Your task to perform on an android device: find snoozed emails in the gmail app Image 0: 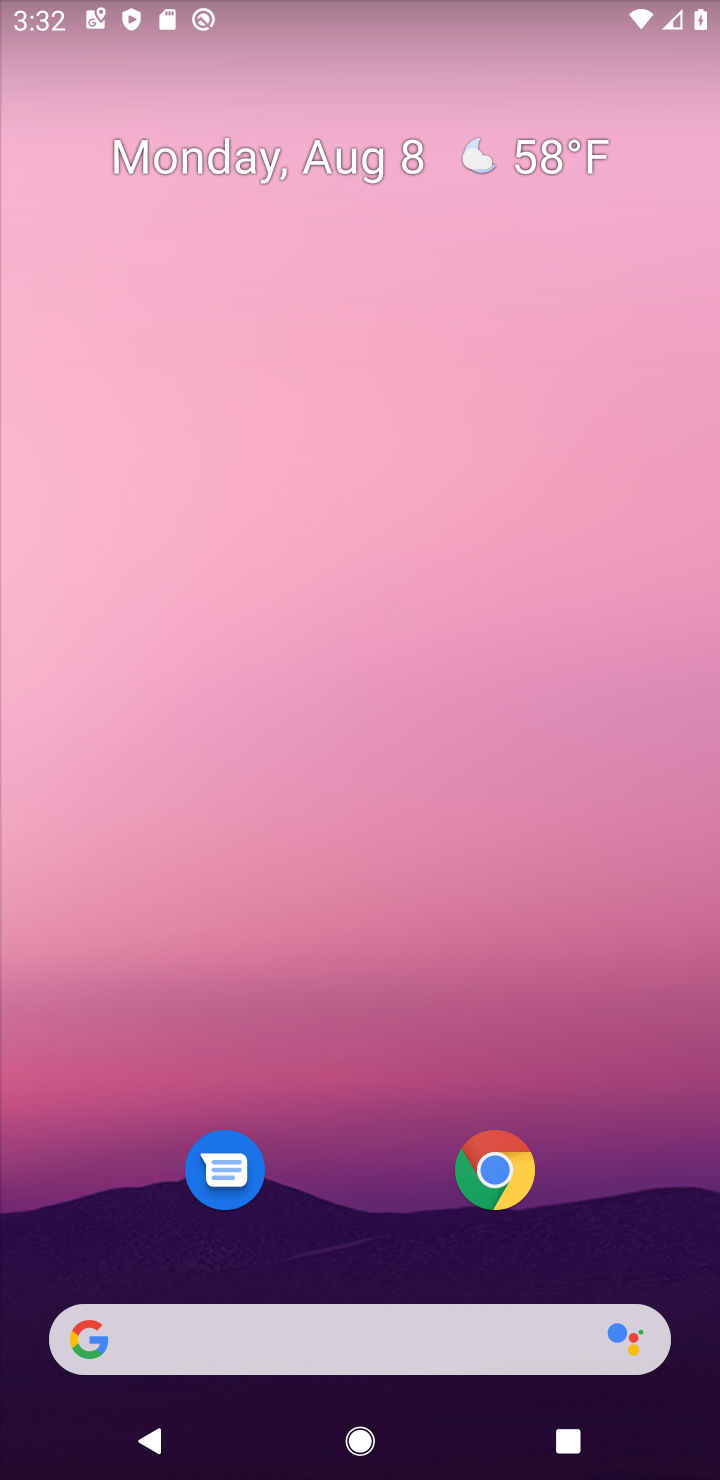
Step 0: drag from (349, 986) to (346, 309)
Your task to perform on an android device: find snoozed emails in the gmail app Image 1: 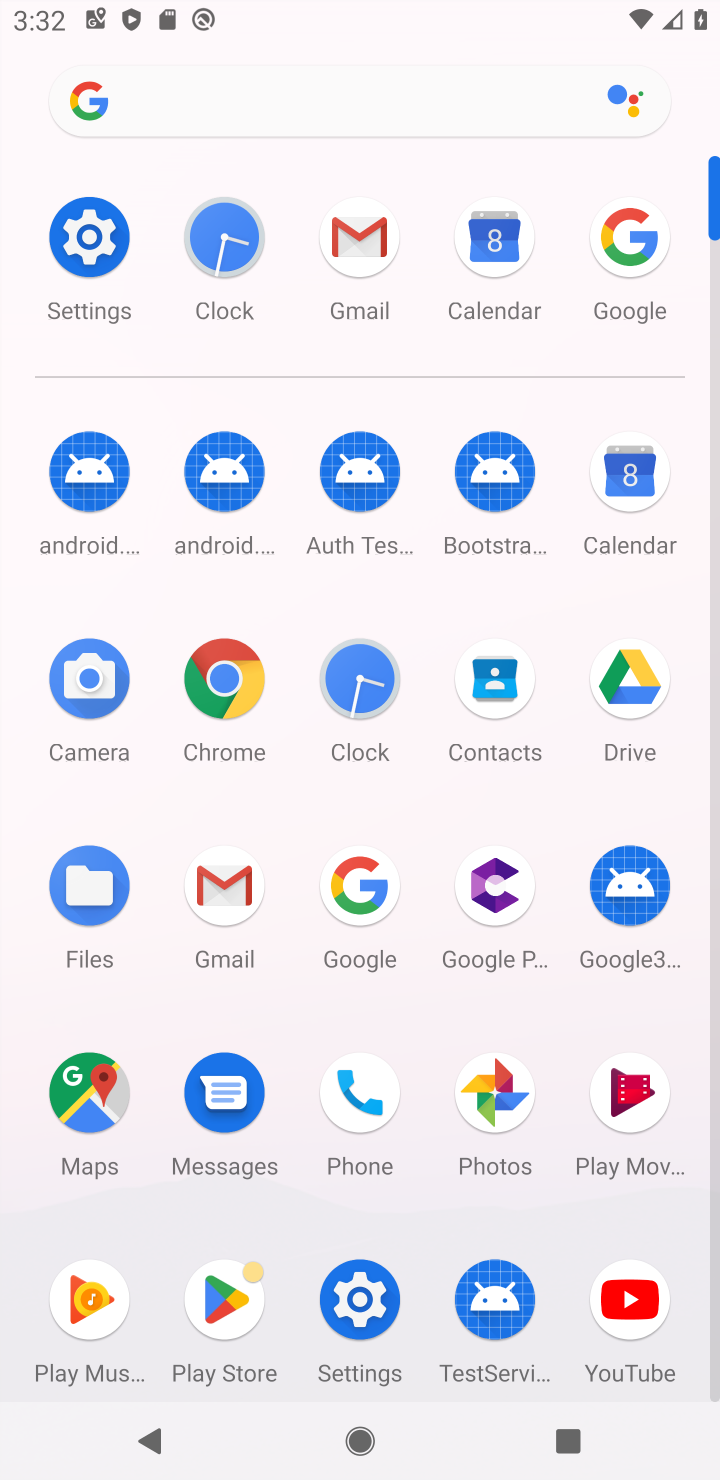
Step 1: click (338, 252)
Your task to perform on an android device: find snoozed emails in the gmail app Image 2: 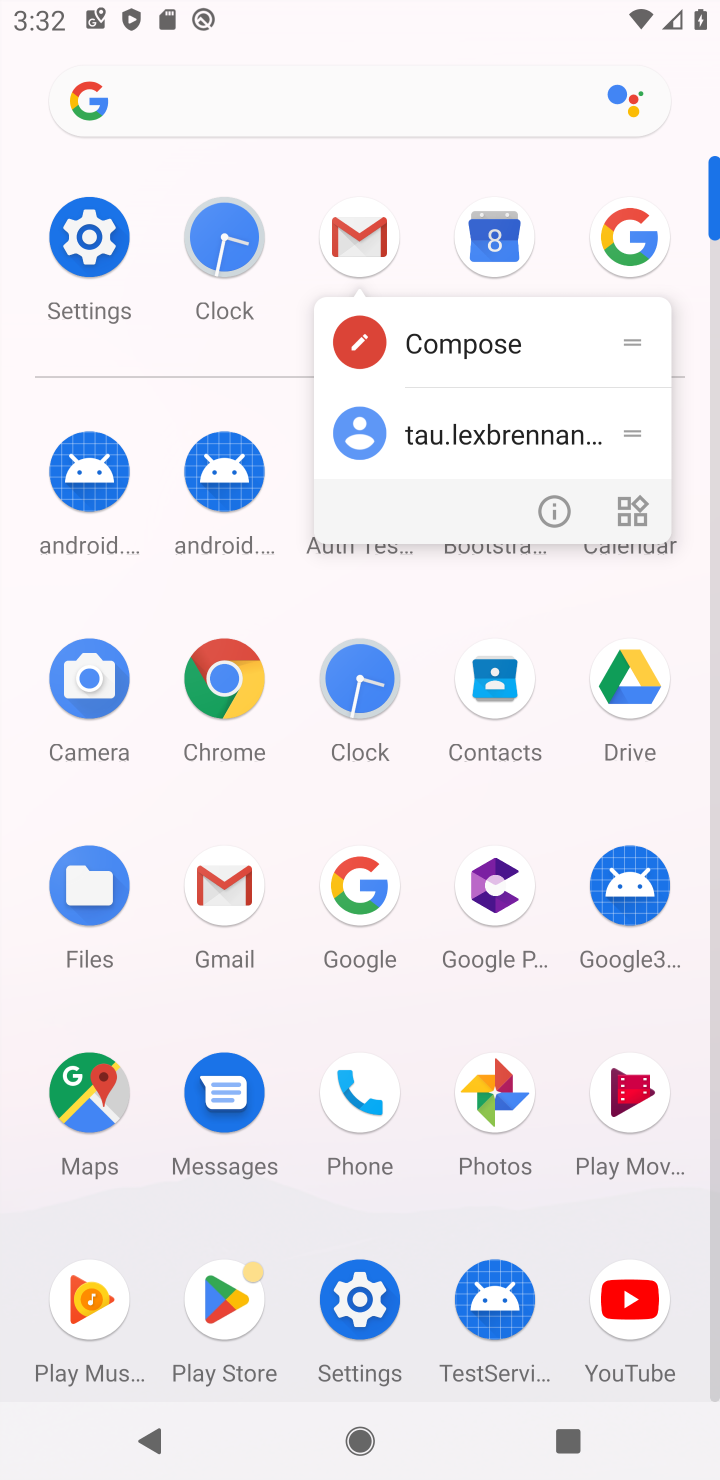
Step 2: click (345, 242)
Your task to perform on an android device: find snoozed emails in the gmail app Image 3: 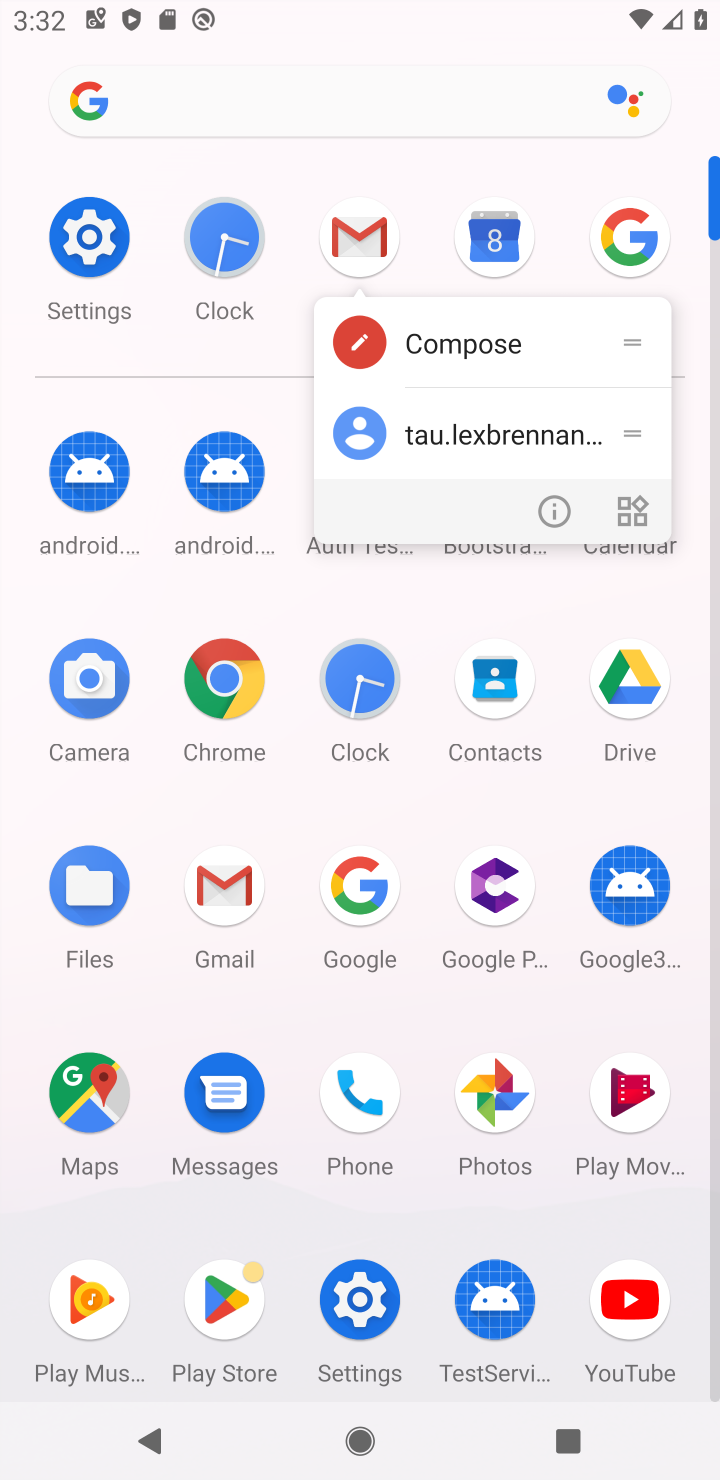
Step 3: click (345, 249)
Your task to perform on an android device: find snoozed emails in the gmail app Image 4: 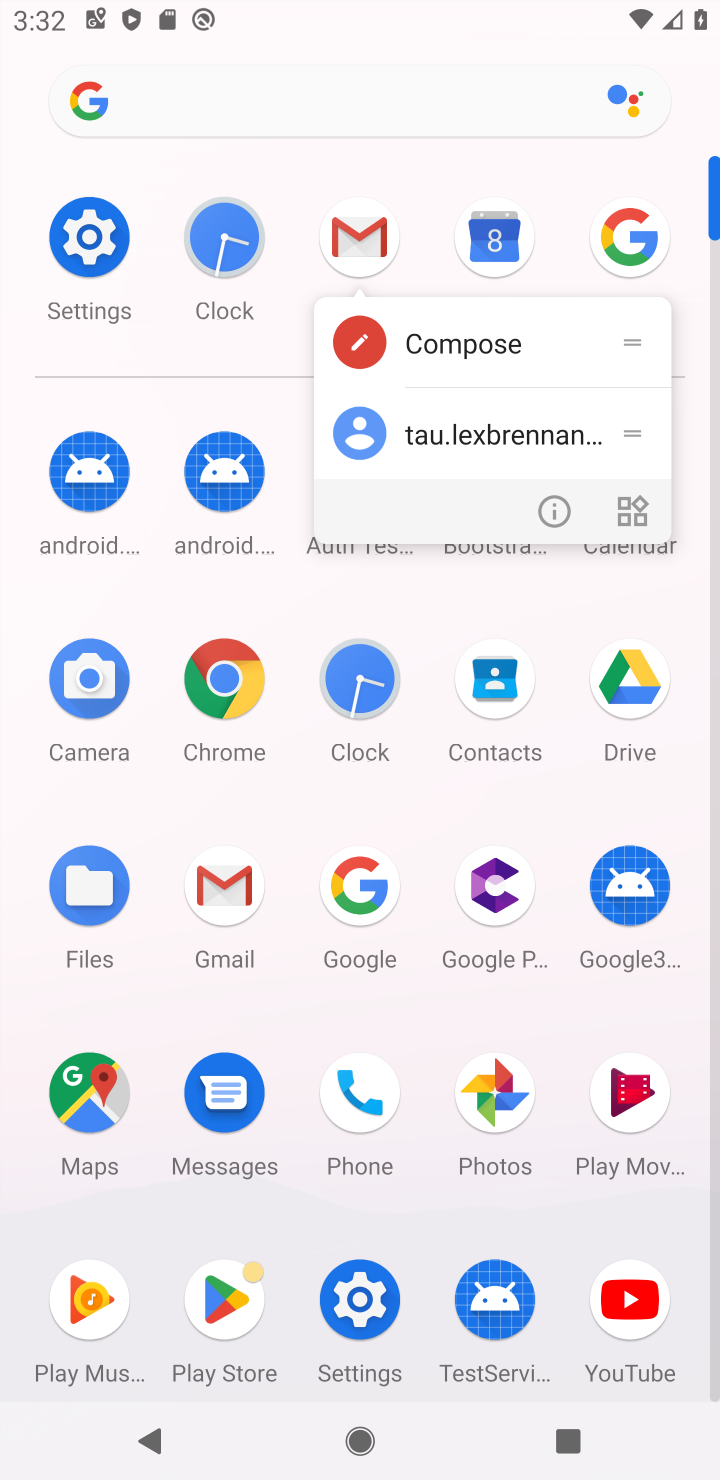
Step 4: click (345, 249)
Your task to perform on an android device: find snoozed emails in the gmail app Image 5: 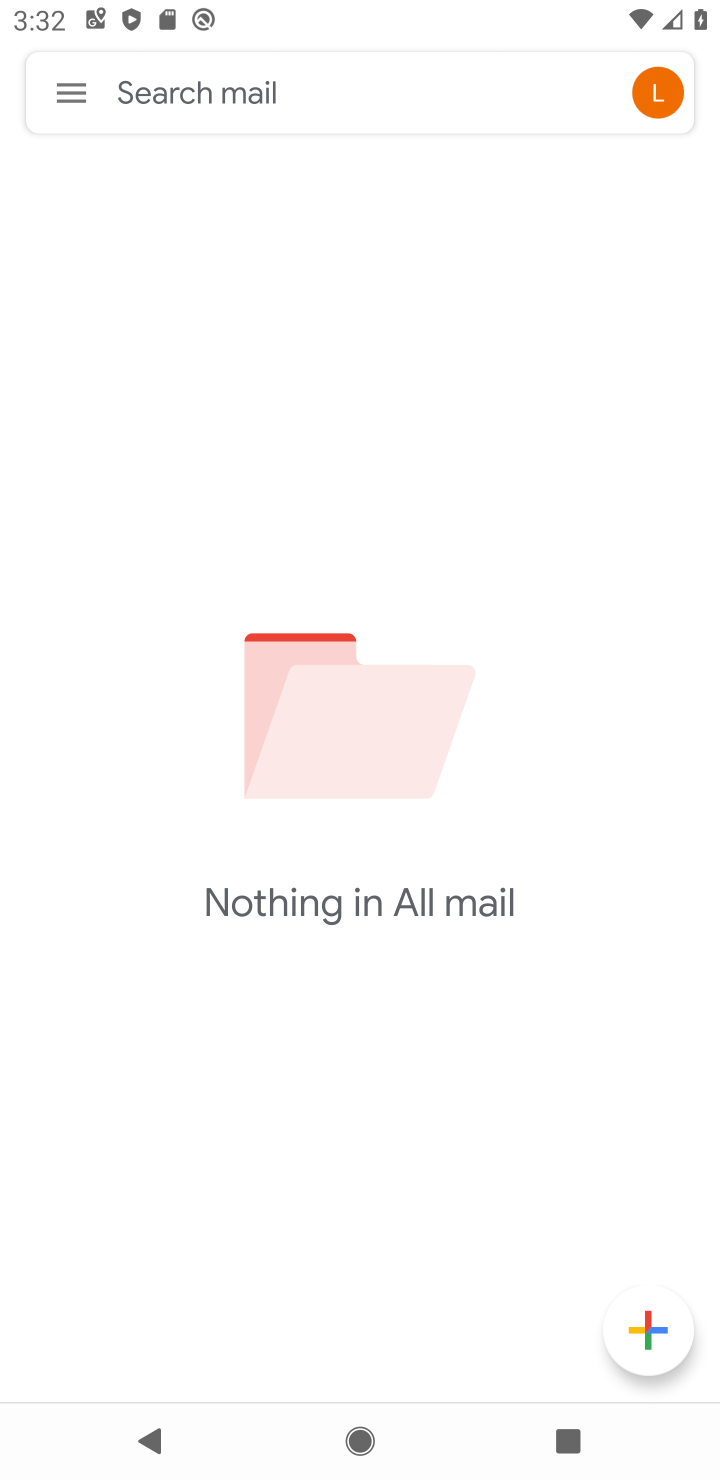
Step 5: click (72, 95)
Your task to perform on an android device: find snoozed emails in the gmail app Image 6: 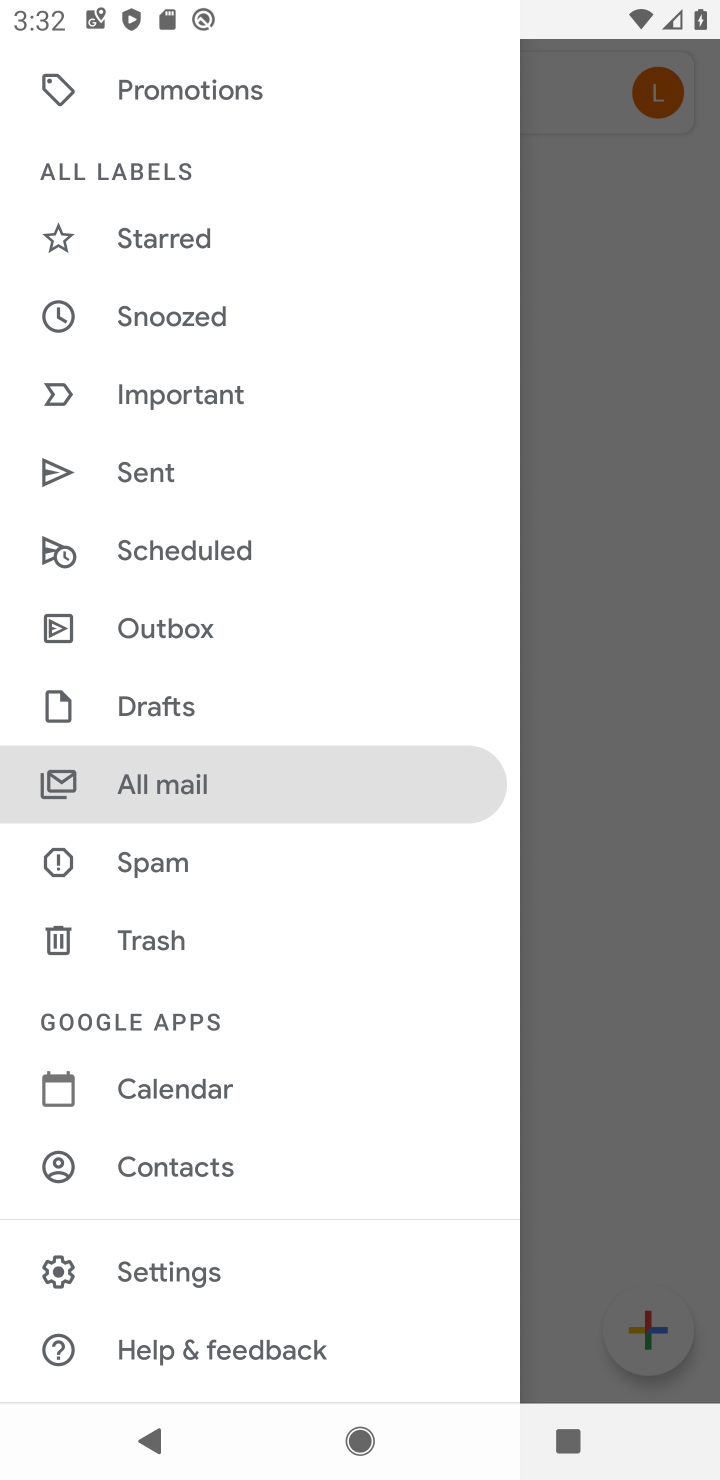
Step 6: click (199, 318)
Your task to perform on an android device: find snoozed emails in the gmail app Image 7: 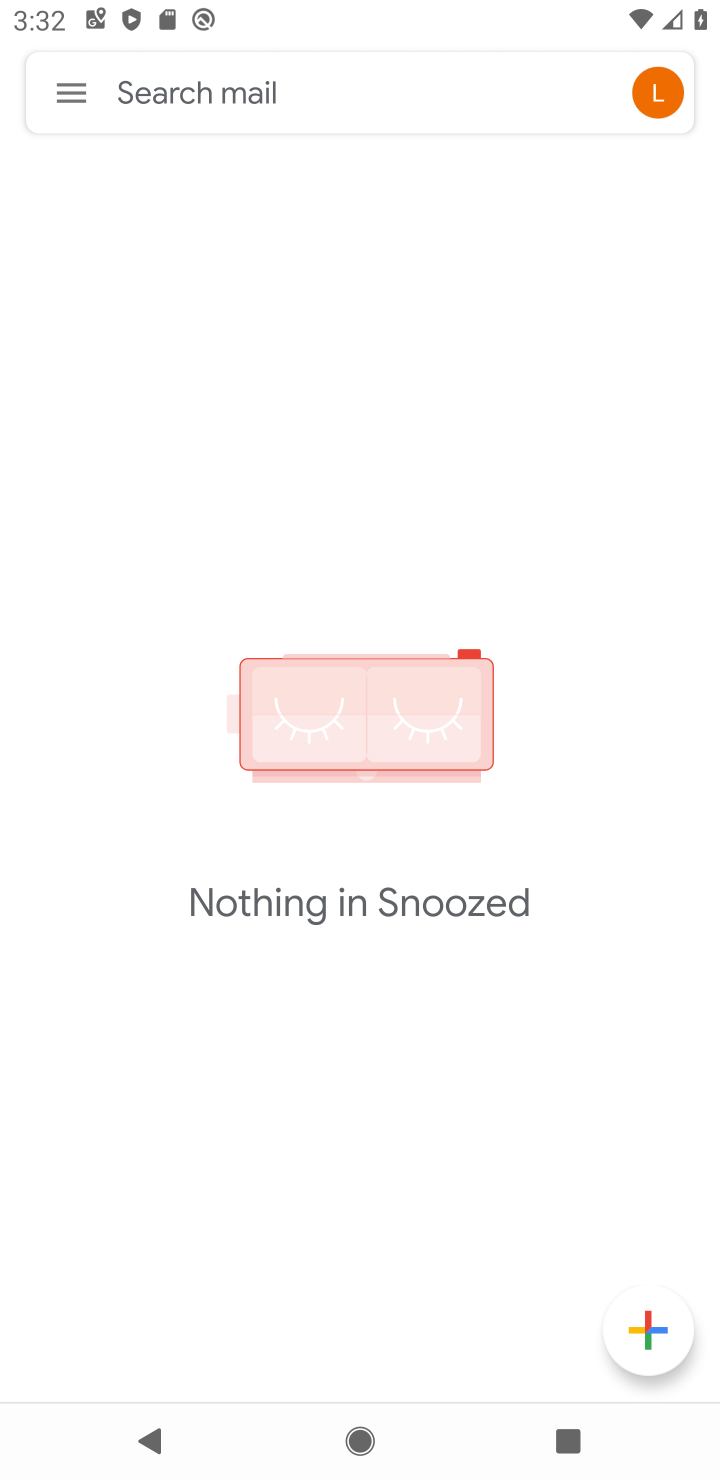
Step 7: click (69, 105)
Your task to perform on an android device: find snoozed emails in the gmail app Image 8: 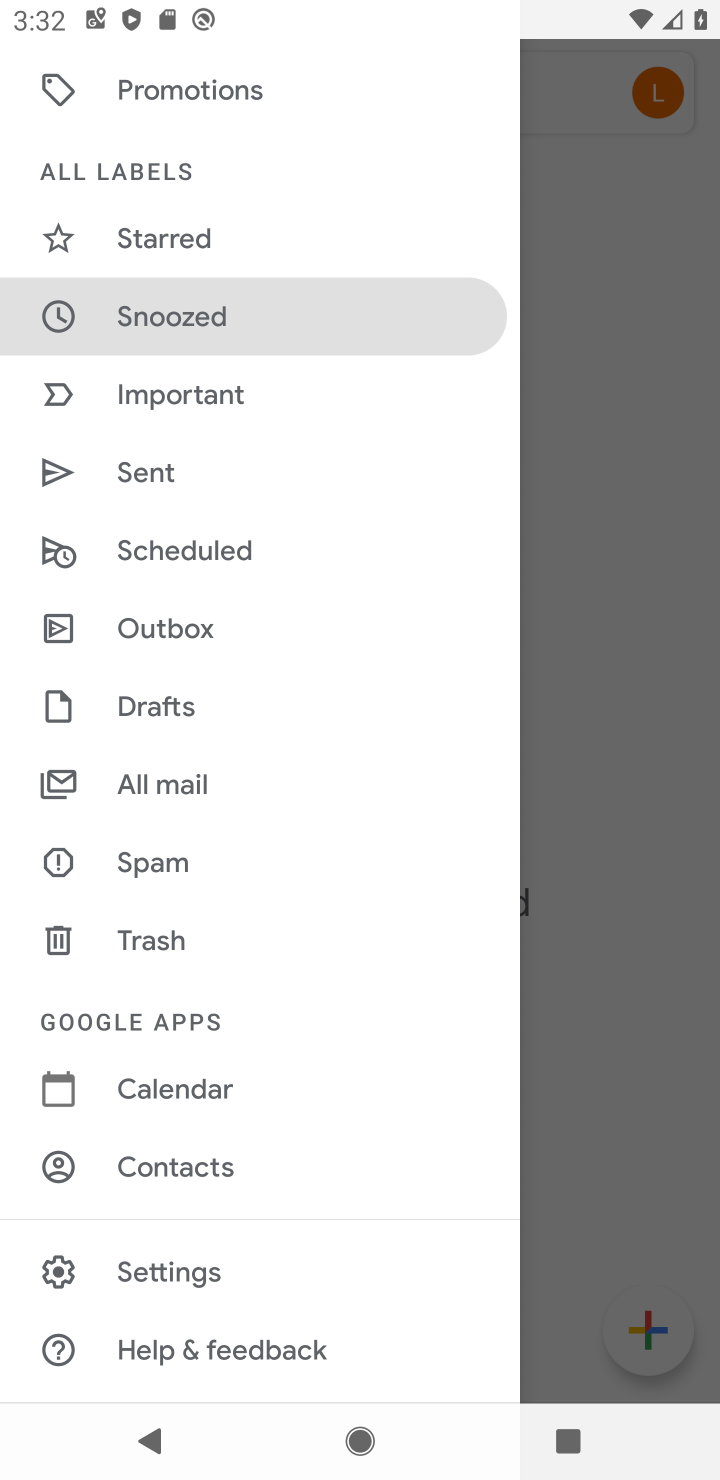
Step 8: task complete